Your task to perform on an android device: toggle sleep mode Image 0: 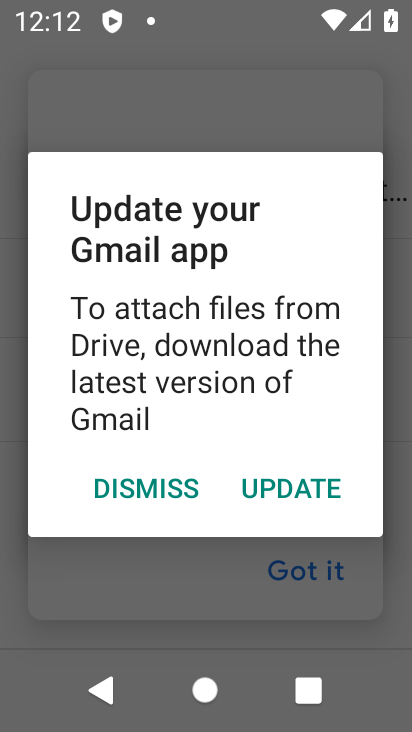
Step 0: press home button
Your task to perform on an android device: toggle sleep mode Image 1: 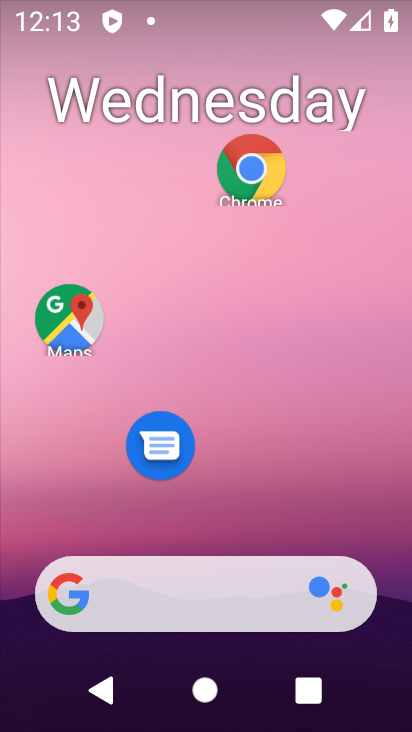
Step 1: task complete